Your task to perform on an android device: delete the emails in spam in the gmail app Image 0: 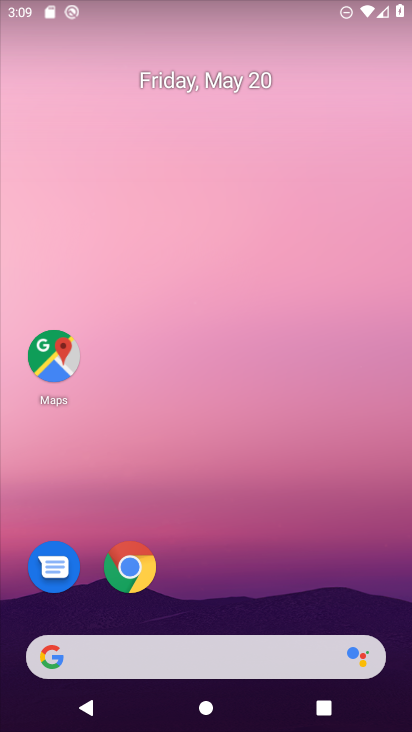
Step 0: press home button
Your task to perform on an android device: delete the emails in spam in the gmail app Image 1: 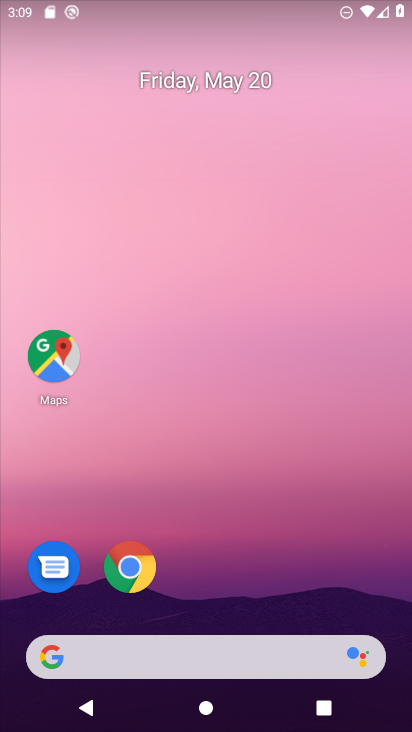
Step 1: drag from (227, 693) to (227, 1)
Your task to perform on an android device: delete the emails in spam in the gmail app Image 2: 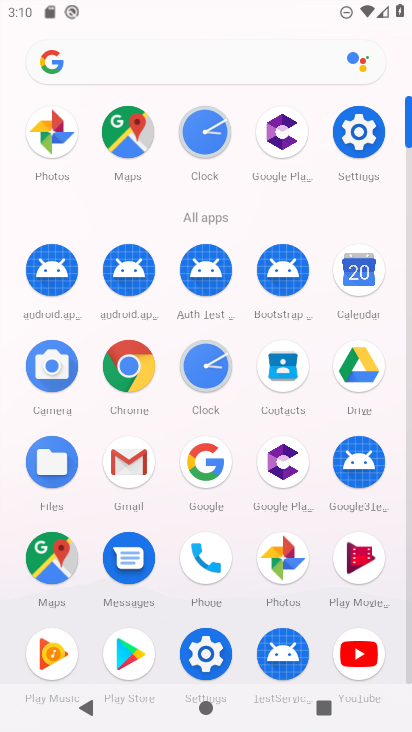
Step 2: click (130, 466)
Your task to perform on an android device: delete the emails in spam in the gmail app Image 3: 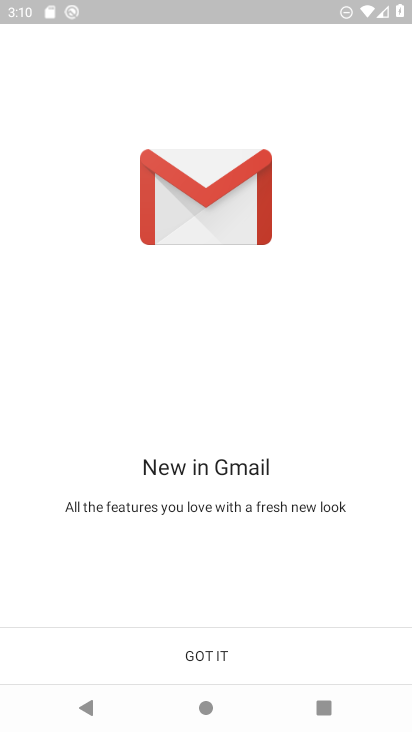
Step 3: click (215, 650)
Your task to perform on an android device: delete the emails in spam in the gmail app Image 4: 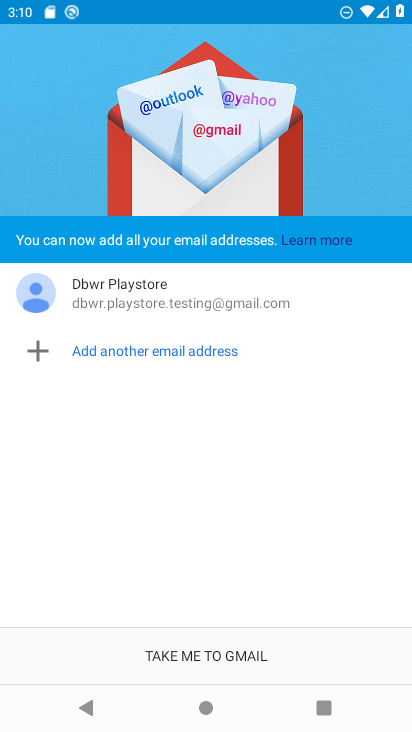
Step 4: click (215, 650)
Your task to perform on an android device: delete the emails in spam in the gmail app Image 5: 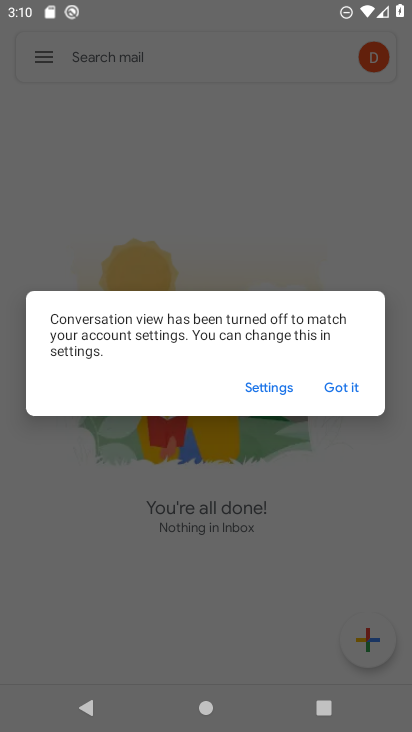
Step 5: click (340, 385)
Your task to perform on an android device: delete the emails in spam in the gmail app Image 6: 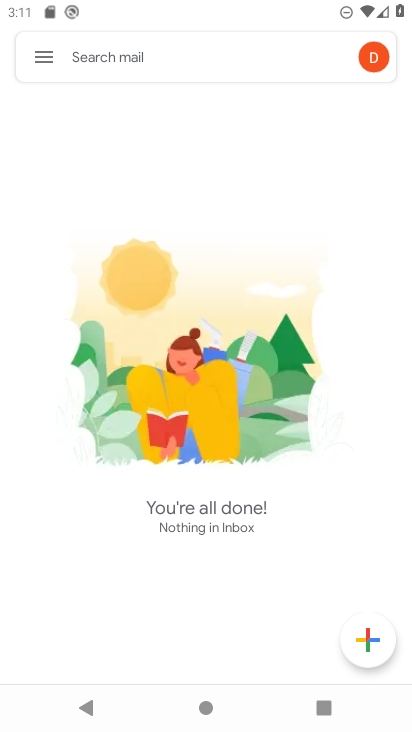
Step 6: task complete